Your task to perform on an android device: turn on showing notifications on the lock screen Image 0: 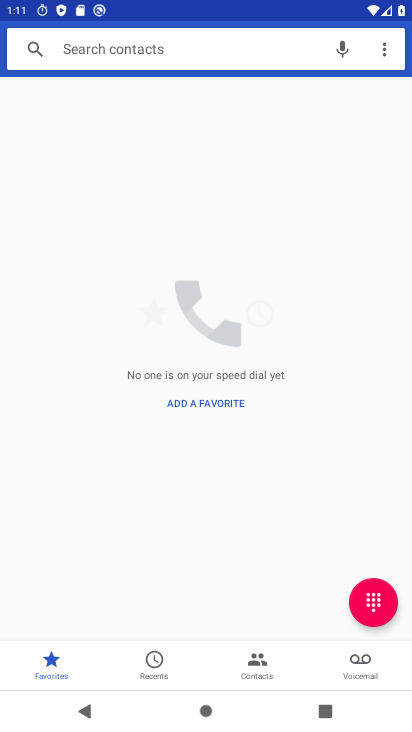
Step 0: press home button
Your task to perform on an android device: turn on showing notifications on the lock screen Image 1: 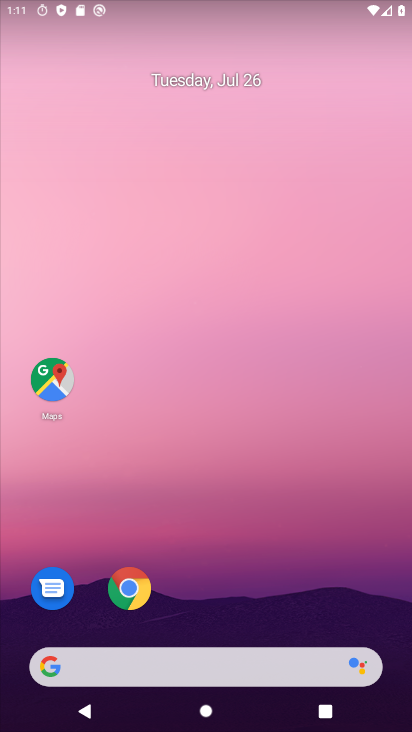
Step 1: drag from (337, 622) to (252, 88)
Your task to perform on an android device: turn on showing notifications on the lock screen Image 2: 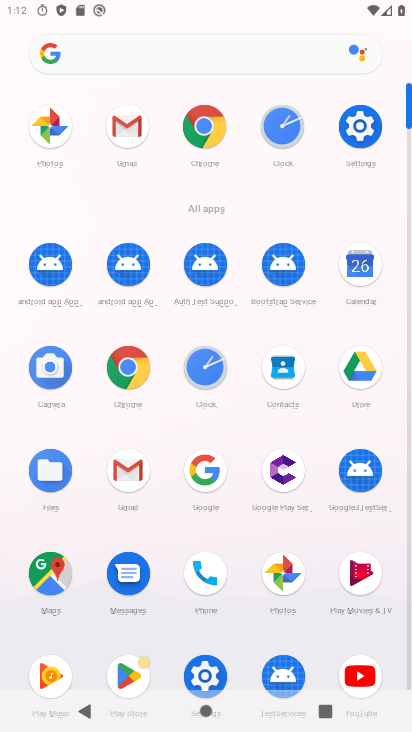
Step 2: click (211, 684)
Your task to perform on an android device: turn on showing notifications on the lock screen Image 3: 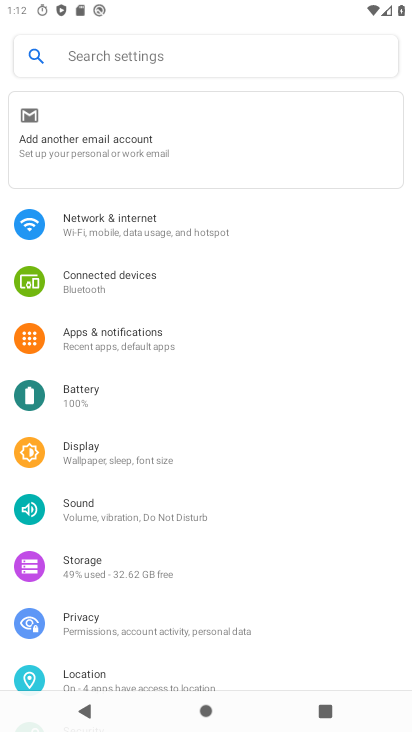
Step 3: click (134, 341)
Your task to perform on an android device: turn on showing notifications on the lock screen Image 4: 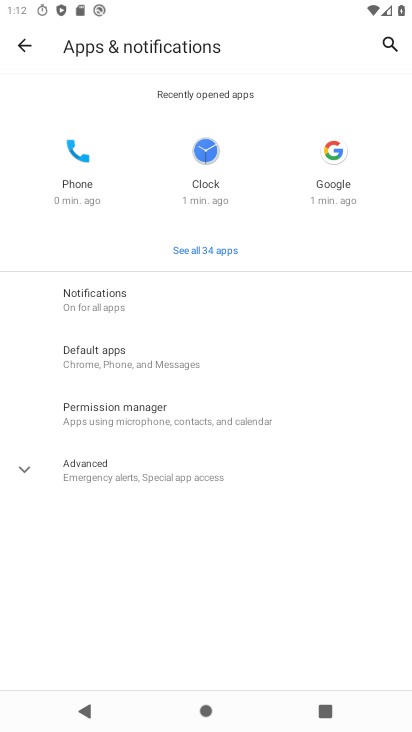
Step 4: click (92, 293)
Your task to perform on an android device: turn on showing notifications on the lock screen Image 5: 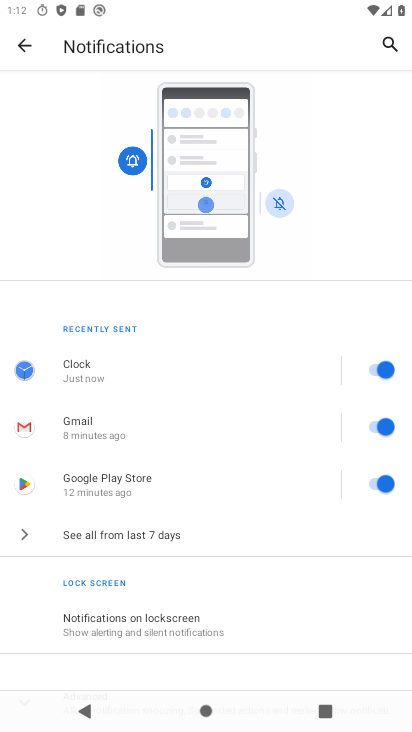
Step 5: click (174, 625)
Your task to perform on an android device: turn on showing notifications on the lock screen Image 6: 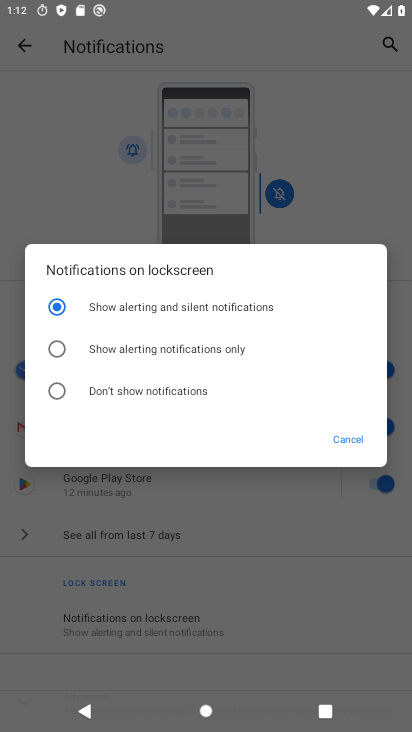
Step 6: task complete